Your task to perform on an android device: change keyboard looks Image 0: 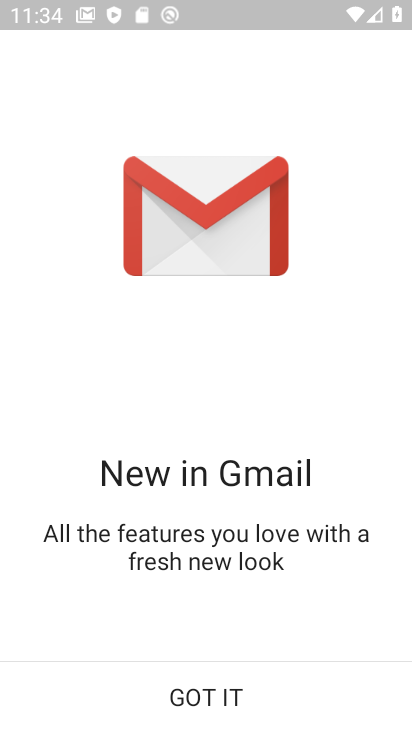
Step 0: press back button
Your task to perform on an android device: change keyboard looks Image 1: 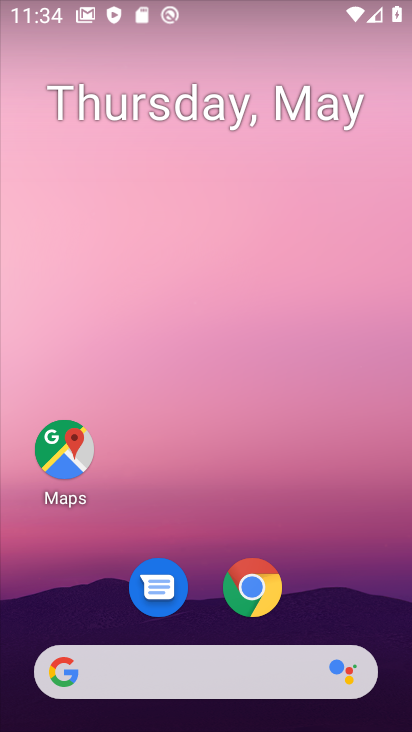
Step 1: drag from (192, 634) to (280, 47)
Your task to perform on an android device: change keyboard looks Image 2: 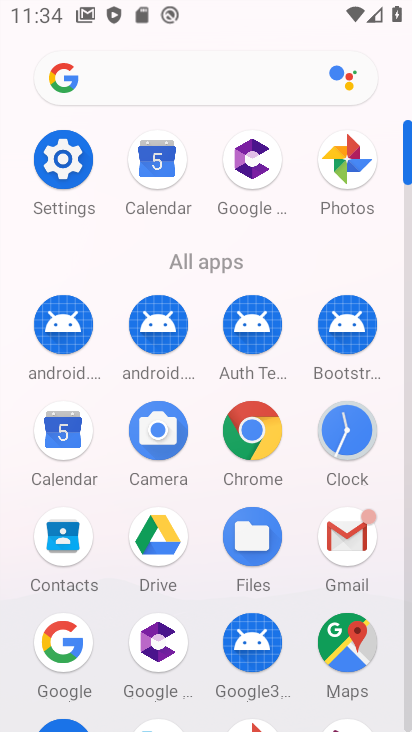
Step 2: click (73, 159)
Your task to perform on an android device: change keyboard looks Image 3: 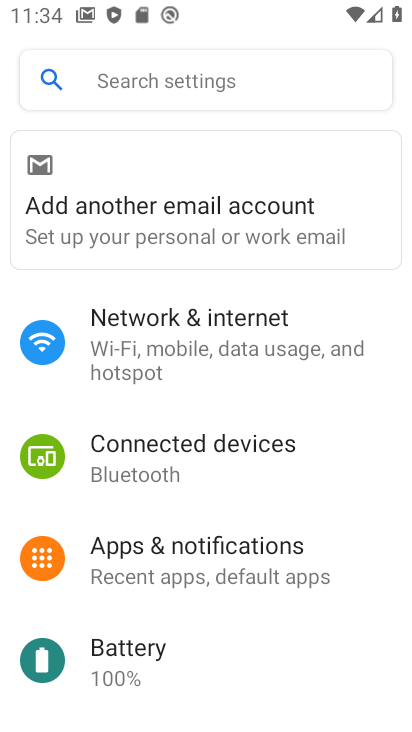
Step 3: drag from (200, 655) to (314, 115)
Your task to perform on an android device: change keyboard looks Image 4: 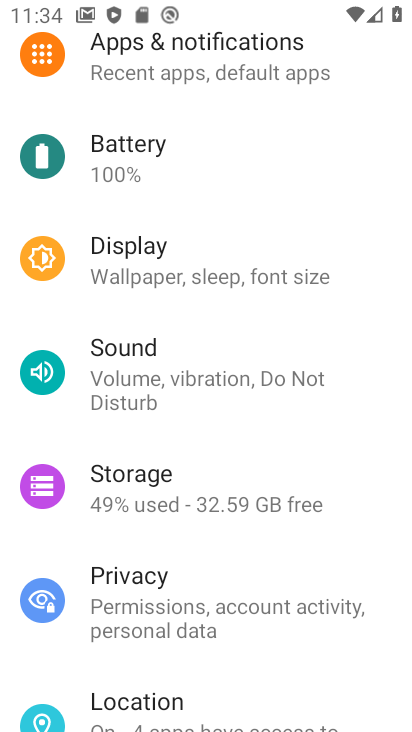
Step 4: drag from (205, 622) to (317, 27)
Your task to perform on an android device: change keyboard looks Image 5: 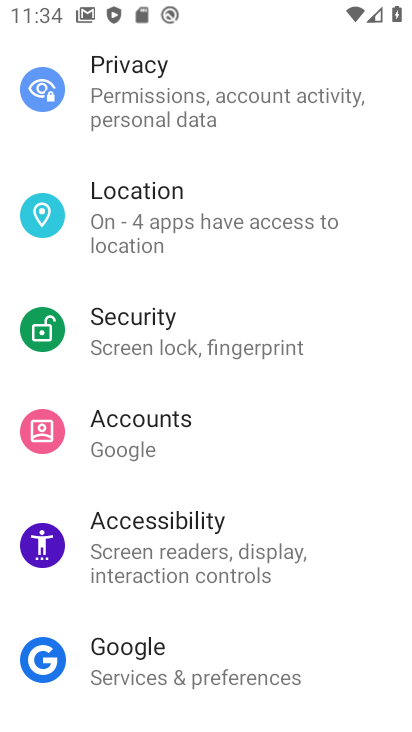
Step 5: drag from (171, 666) to (308, 4)
Your task to perform on an android device: change keyboard looks Image 6: 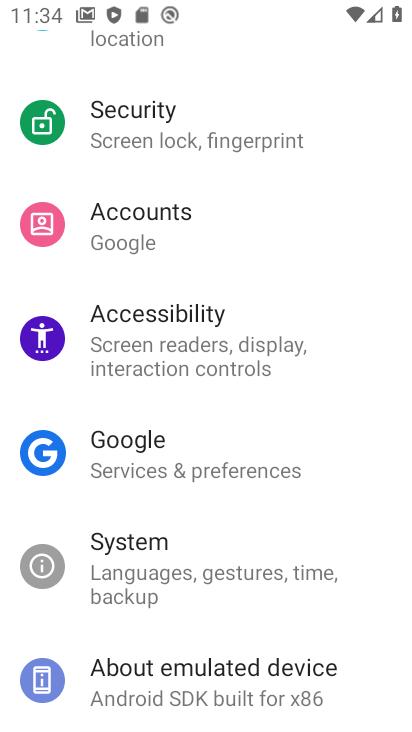
Step 6: click (169, 681)
Your task to perform on an android device: change keyboard looks Image 7: 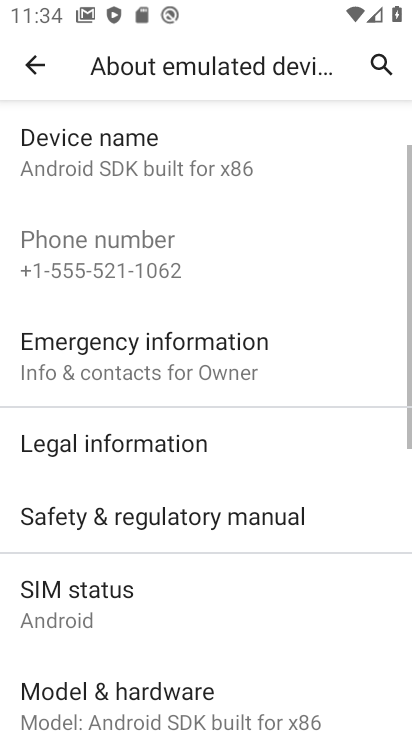
Step 7: click (26, 60)
Your task to perform on an android device: change keyboard looks Image 8: 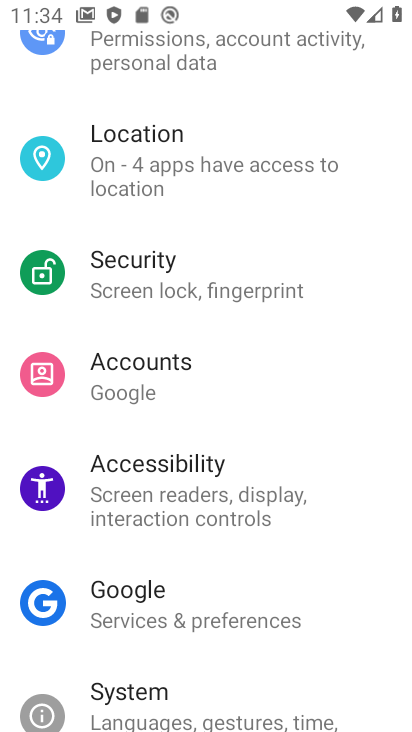
Step 8: drag from (180, 650) to (320, 12)
Your task to perform on an android device: change keyboard looks Image 9: 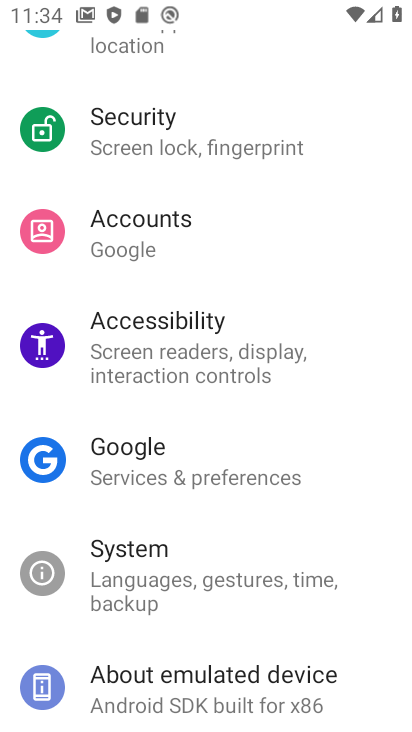
Step 9: click (162, 590)
Your task to perform on an android device: change keyboard looks Image 10: 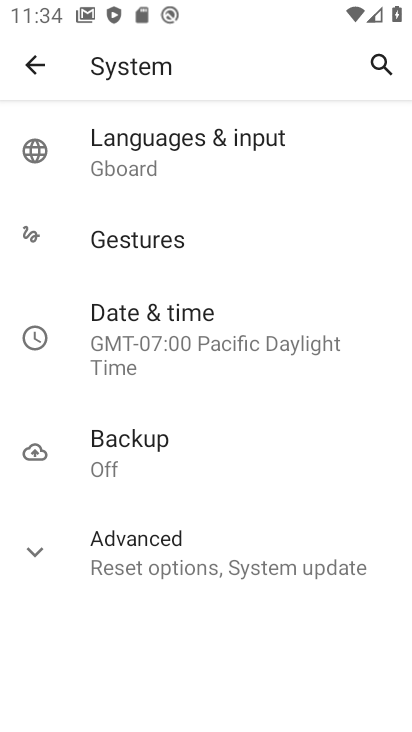
Step 10: click (138, 145)
Your task to perform on an android device: change keyboard looks Image 11: 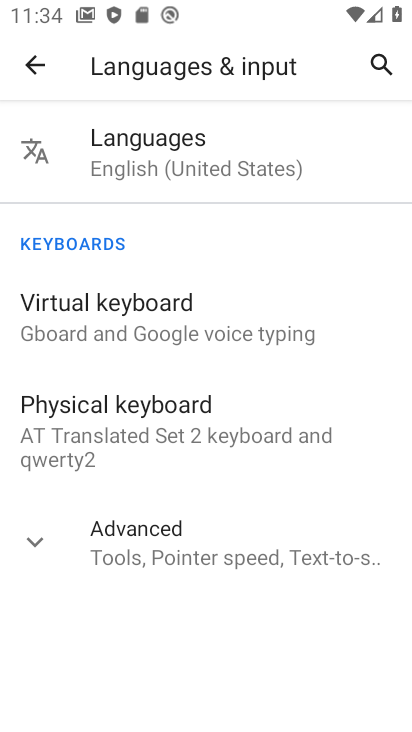
Step 11: click (124, 305)
Your task to perform on an android device: change keyboard looks Image 12: 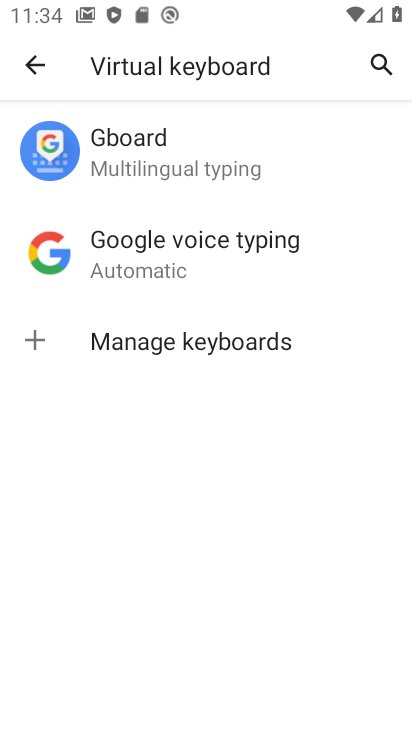
Step 12: click (146, 145)
Your task to perform on an android device: change keyboard looks Image 13: 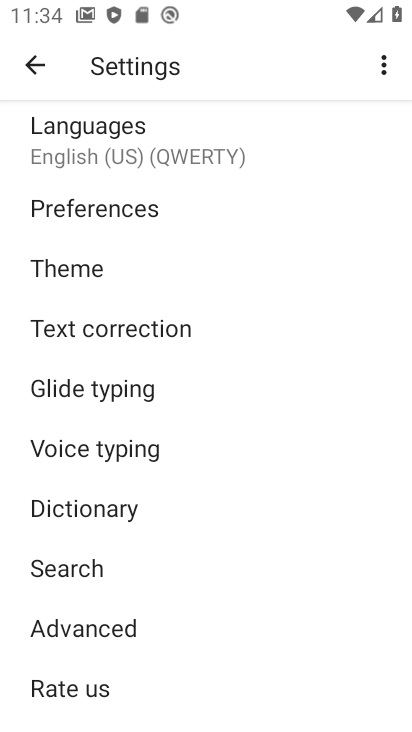
Step 13: click (69, 275)
Your task to perform on an android device: change keyboard looks Image 14: 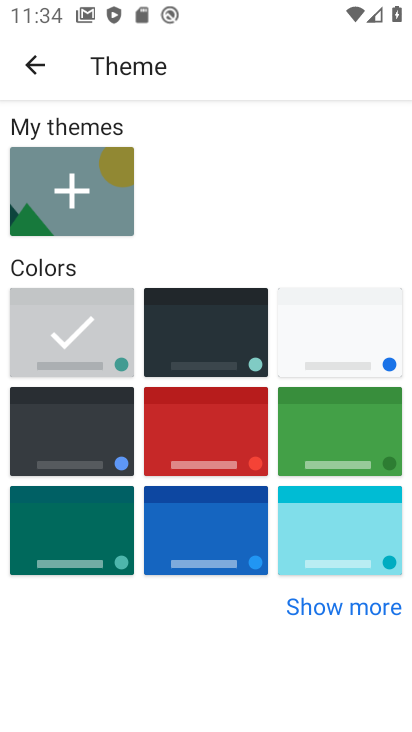
Step 14: click (336, 435)
Your task to perform on an android device: change keyboard looks Image 15: 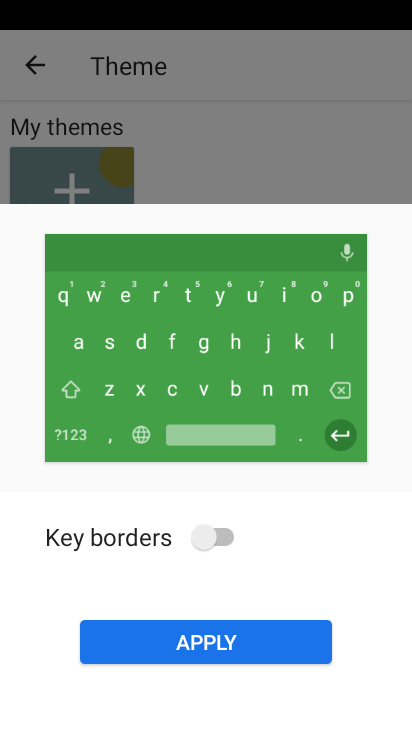
Step 15: click (199, 550)
Your task to perform on an android device: change keyboard looks Image 16: 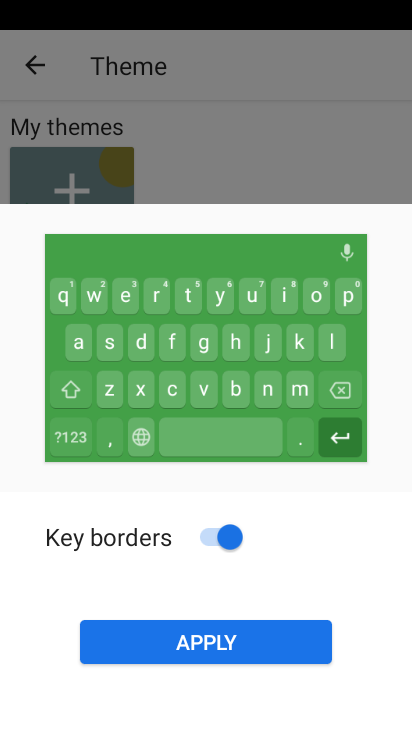
Step 16: click (167, 648)
Your task to perform on an android device: change keyboard looks Image 17: 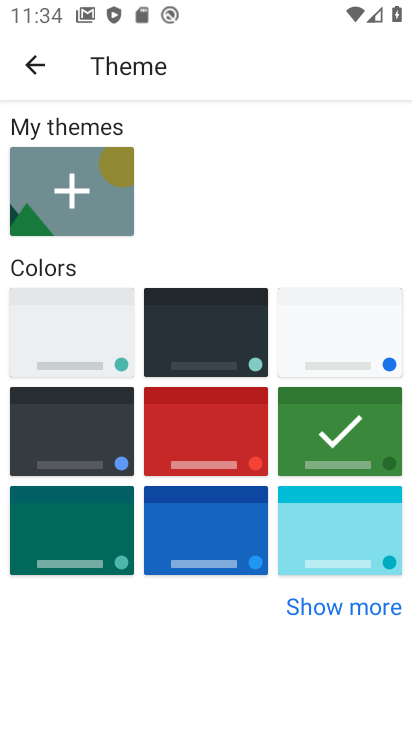
Step 17: task complete